Your task to perform on an android device: add a contact in the contacts app Image 0: 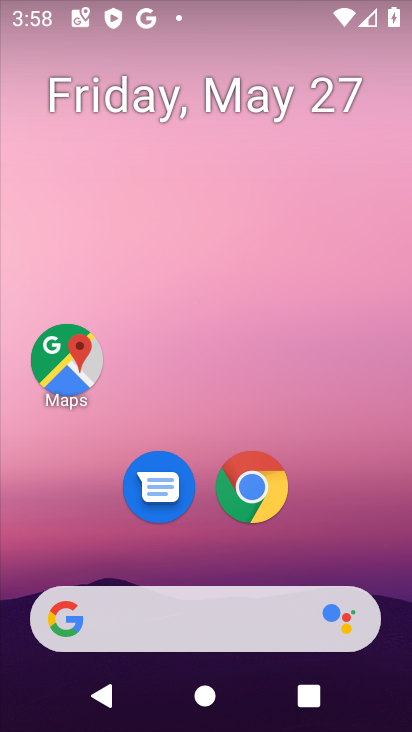
Step 0: drag from (331, 497) to (291, 136)
Your task to perform on an android device: add a contact in the contacts app Image 1: 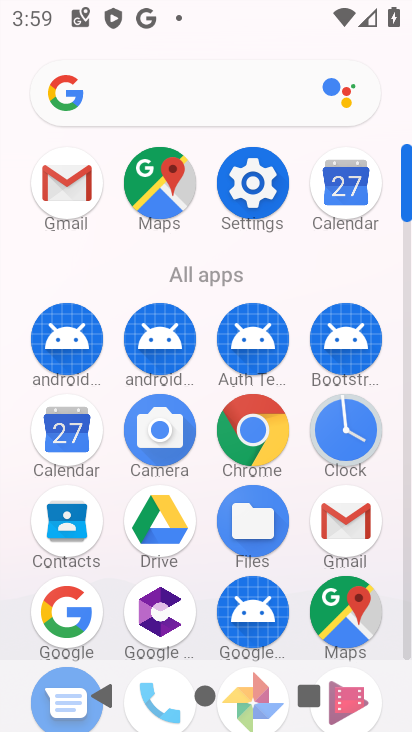
Step 1: drag from (303, 563) to (304, 201)
Your task to perform on an android device: add a contact in the contacts app Image 2: 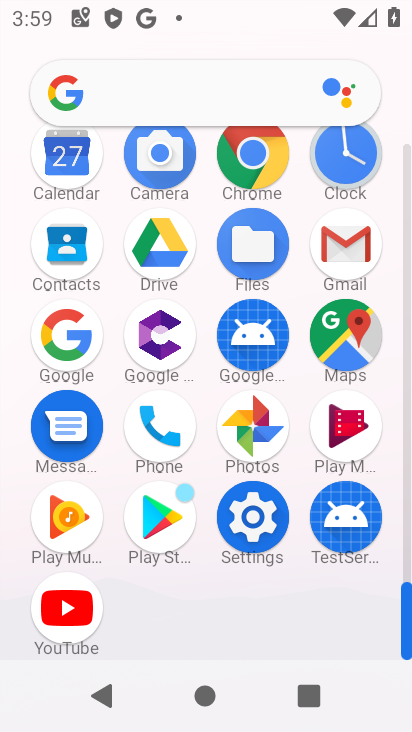
Step 2: drag from (213, 390) to (234, 685)
Your task to perform on an android device: add a contact in the contacts app Image 3: 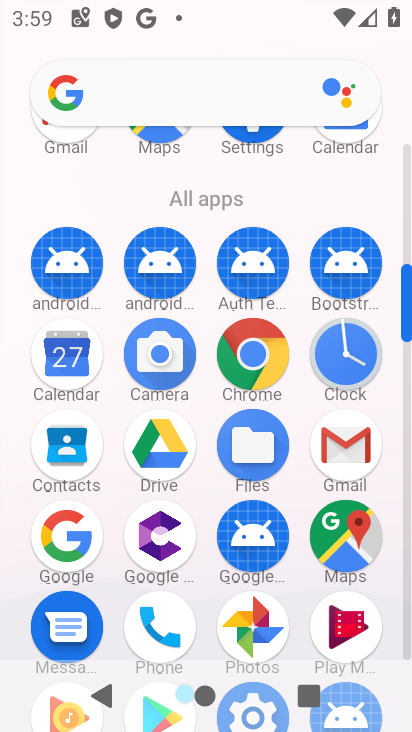
Step 3: click (71, 452)
Your task to perform on an android device: add a contact in the contacts app Image 4: 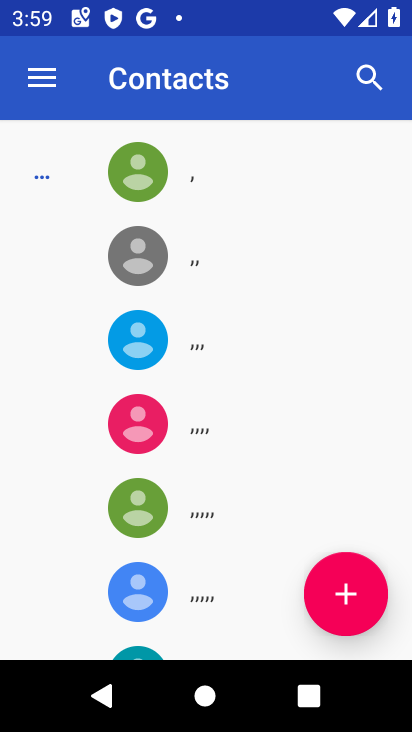
Step 4: click (350, 603)
Your task to perform on an android device: add a contact in the contacts app Image 5: 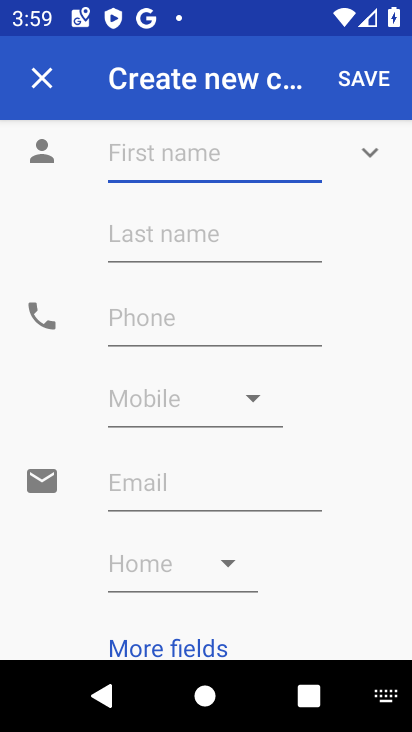
Step 5: type "india"
Your task to perform on an android device: add a contact in the contacts app Image 6: 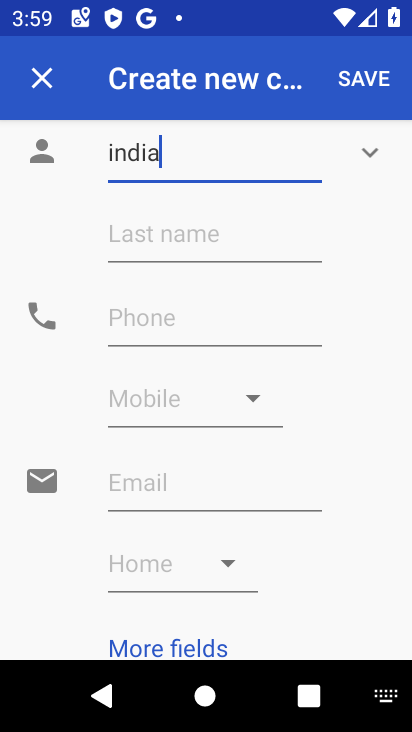
Step 6: click (353, 89)
Your task to perform on an android device: add a contact in the contacts app Image 7: 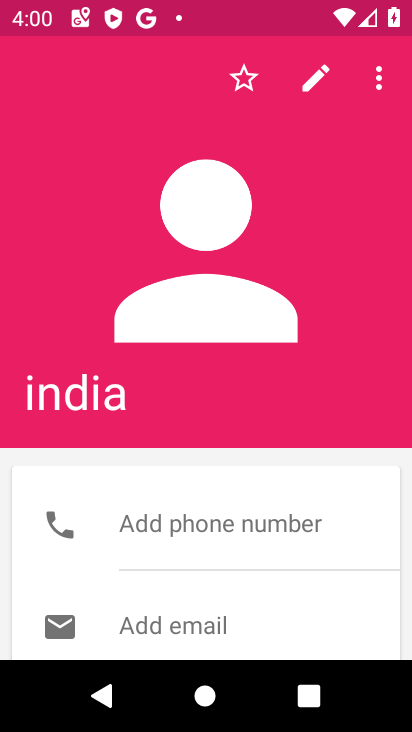
Step 7: task complete